Your task to perform on an android device: Open the calendar and show me this week's events Image 0: 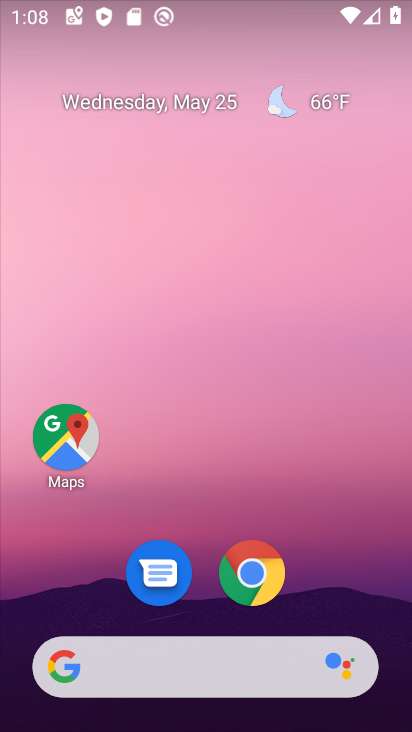
Step 0: drag from (392, 621) to (344, 97)
Your task to perform on an android device: Open the calendar and show me this week's events Image 1: 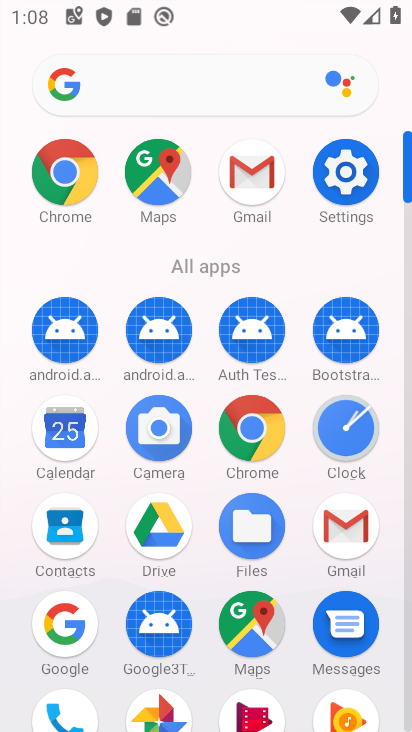
Step 1: click (405, 680)
Your task to perform on an android device: Open the calendar and show me this week's events Image 2: 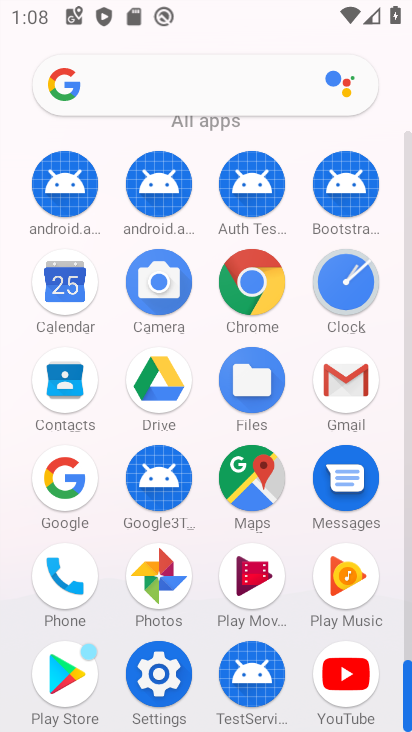
Step 2: click (62, 277)
Your task to perform on an android device: Open the calendar and show me this week's events Image 3: 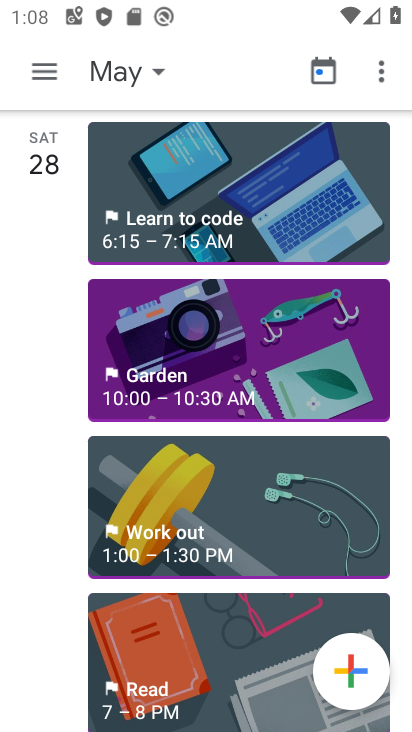
Step 3: click (52, 74)
Your task to perform on an android device: Open the calendar and show me this week's events Image 4: 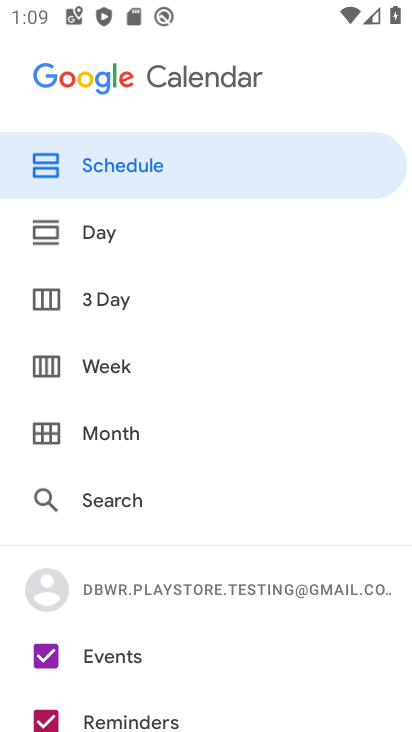
Step 4: click (108, 375)
Your task to perform on an android device: Open the calendar and show me this week's events Image 5: 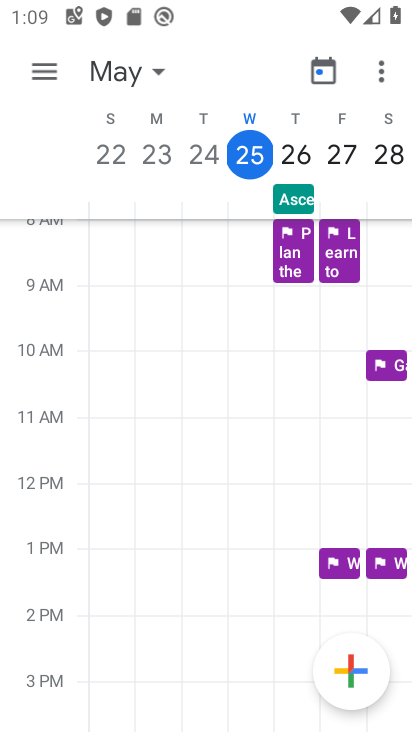
Step 5: task complete